Your task to perform on an android device: change the upload size in google photos Image 0: 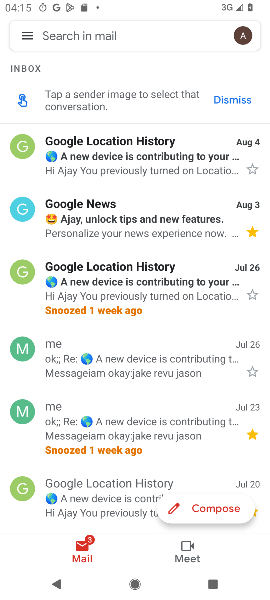
Step 0: press home button
Your task to perform on an android device: change the upload size in google photos Image 1: 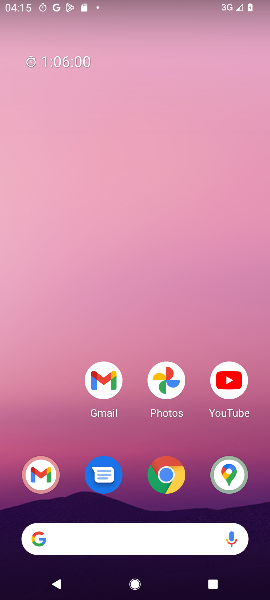
Step 1: drag from (55, 431) to (46, 248)
Your task to perform on an android device: change the upload size in google photos Image 2: 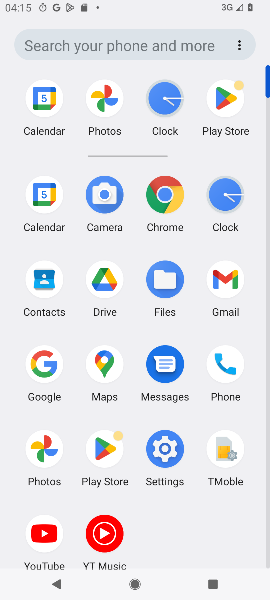
Step 2: click (41, 443)
Your task to perform on an android device: change the upload size in google photos Image 3: 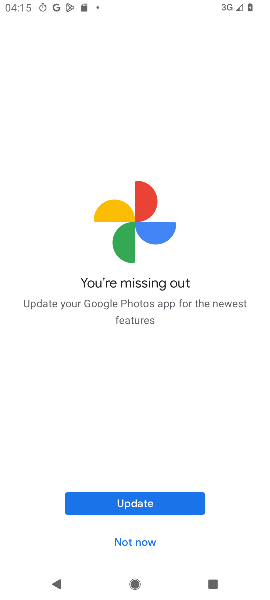
Step 3: click (130, 545)
Your task to perform on an android device: change the upload size in google photos Image 4: 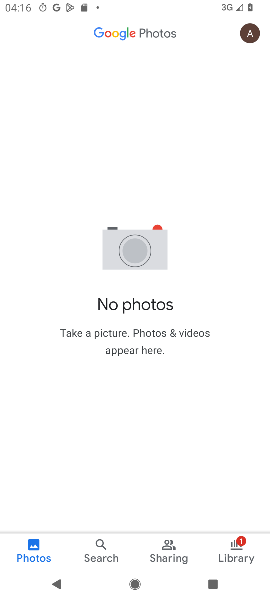
Step 4: click (250, 35)
Your task to perform on an android device: change the upload size in google photos Image 5: 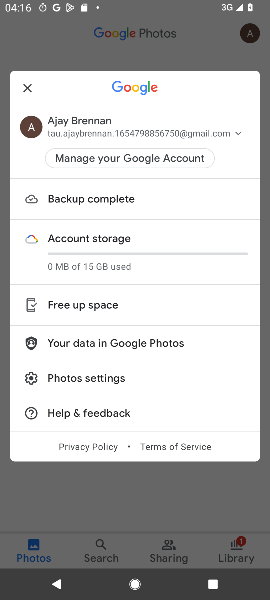
Step 5: click (125, 374)
Your task to perform on an android device: change the upload size in google photos Image 6: 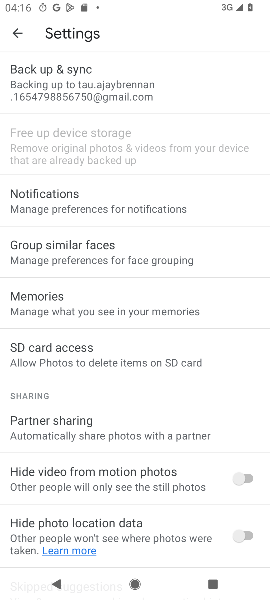
Step 6: click (131, 96)
Your task to perform on an android device: change the upload size in google photos Image 7: 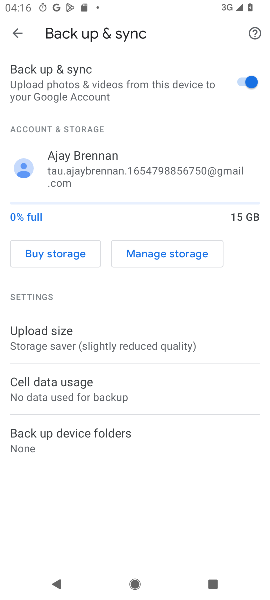
Step 7: click (79, 337)
Your task to perform on an android device: change the upload size in google photos Image 8: 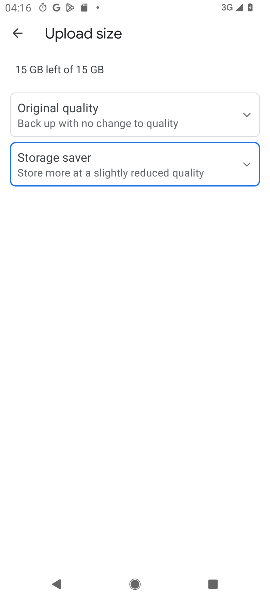
Step 8: click (91, 113)
Your task to perform on an android device: change the upload size in google photos Image 9: 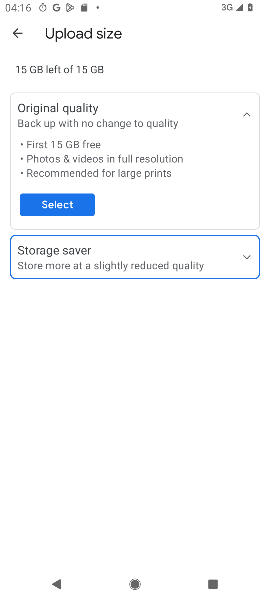
Step 9: click (52, 212)
Your task to perform on an android device: change the upload size in google photos Image 10: 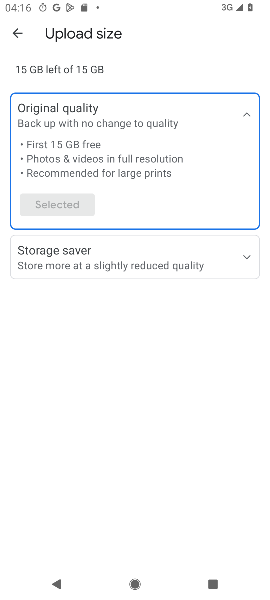
Step 10: task complete